Your task to perform on an android device: Go to location settings Image 0: 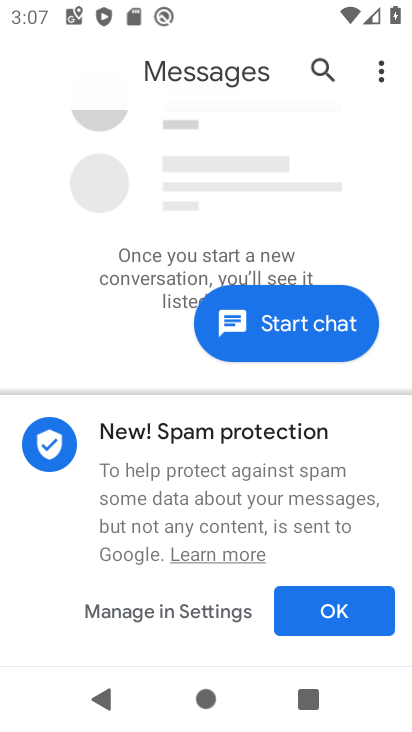
Step 0: press back button
Your task to perform on an android device: Go to location settings Image 1: 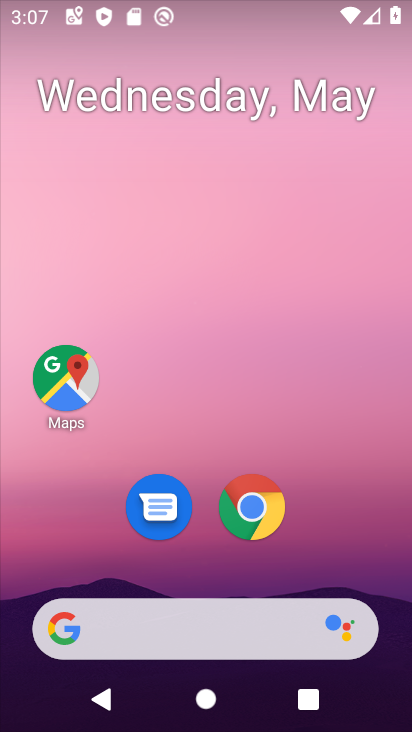
Step 1: drag from (170, 556) to (254, 61)
Your task to perform on an android device: Go to location settings Image 2: 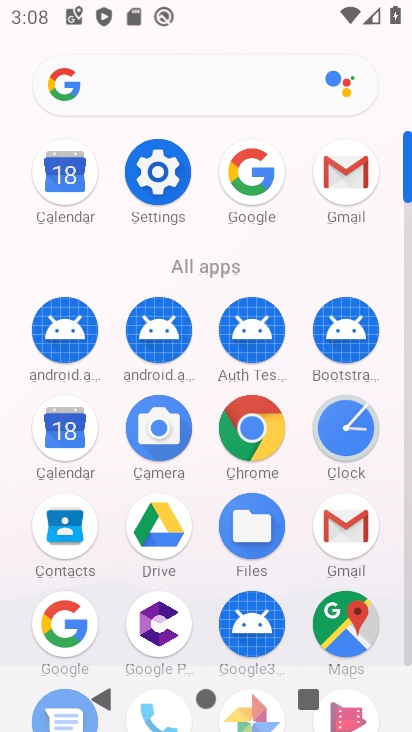
Step 2: click (159, 167)
Your task to perform on an android device: Go to location settings Image 3: 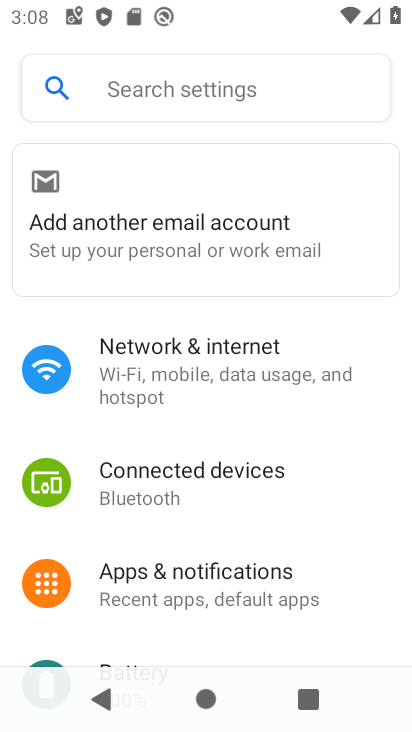
Step 3: drag from (198, 605) to (275, 136)
Your task to perform on an android device: Go to location settings Image 4: 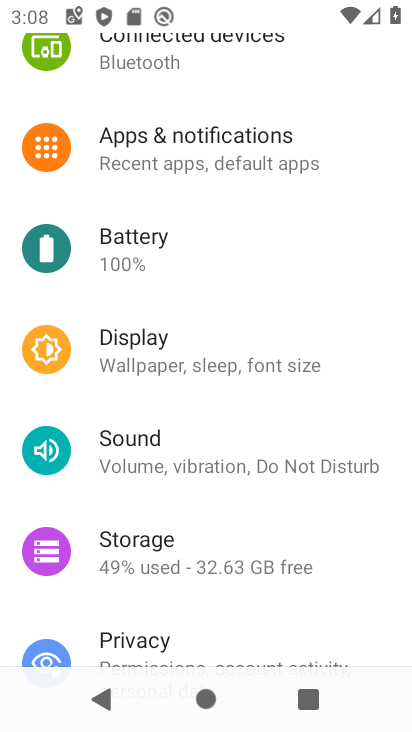
Step 4: drag from (159, 576) to (181, 97)
Your task to perform on an android device: Go to location settings Image 5: 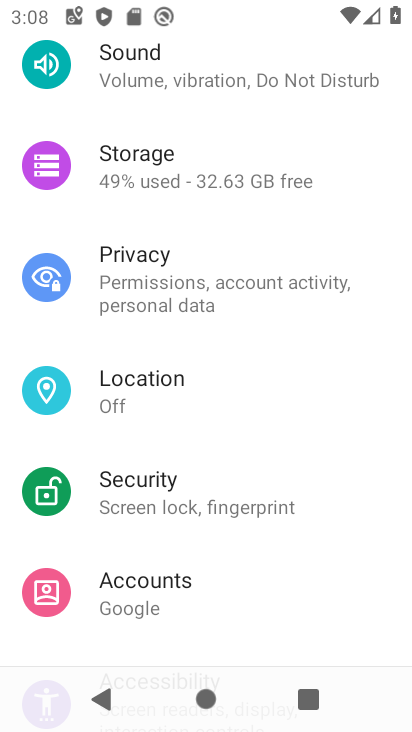
Step 5: click (161, 396)
Your task to perform on an android device: Go to location settings Image 6: 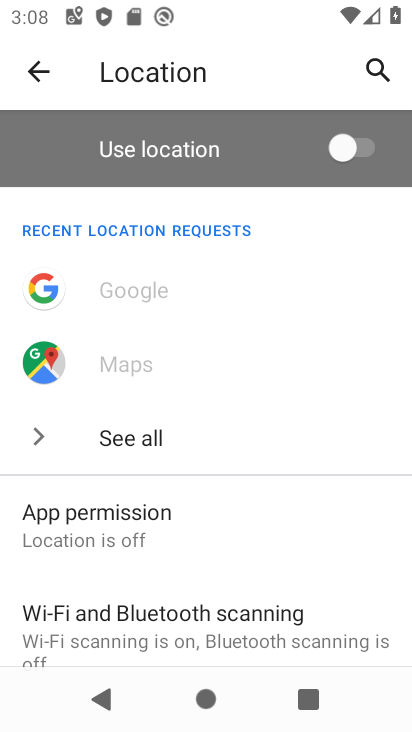
Step 6: task complete